Your task to perform on an android device: choose inbox layout in the gmail app Image 0: 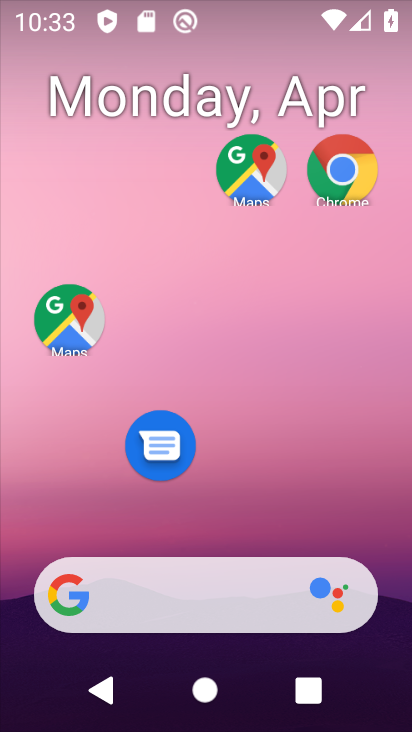
Step 0: drag from (291, 258) to (283, 0)
Your task to perform on an android device: choose inbox layout in the gmail app Image 1: 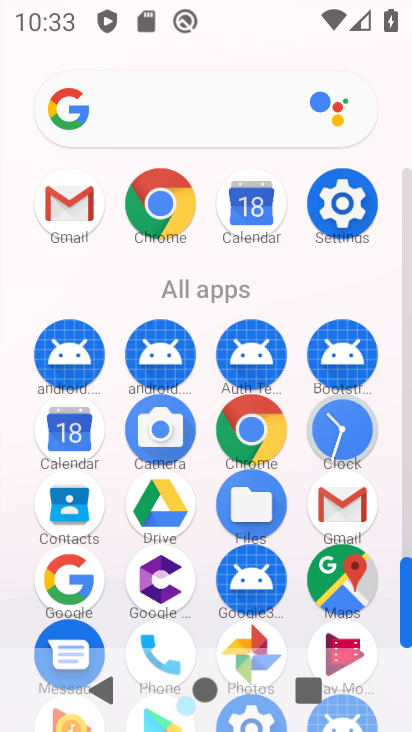
Step 1: click (61, 204)
Your task to perform on an android device: choose inbox layout in the gmail app Image 2: 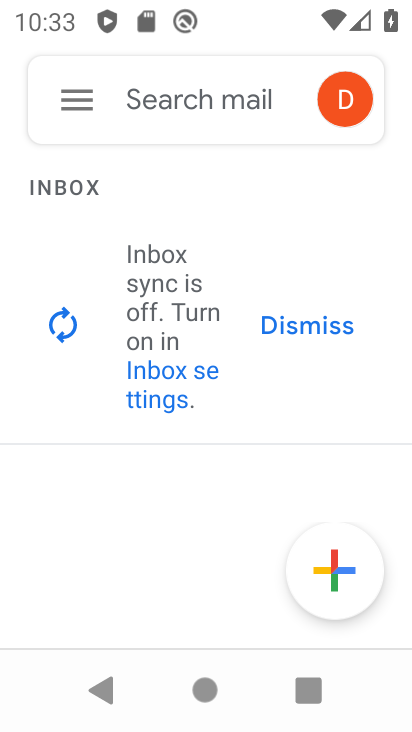
Step 2: click (76, 100)
Your task to perform on an android device: choose inbox layout in the gmail app Image 3: 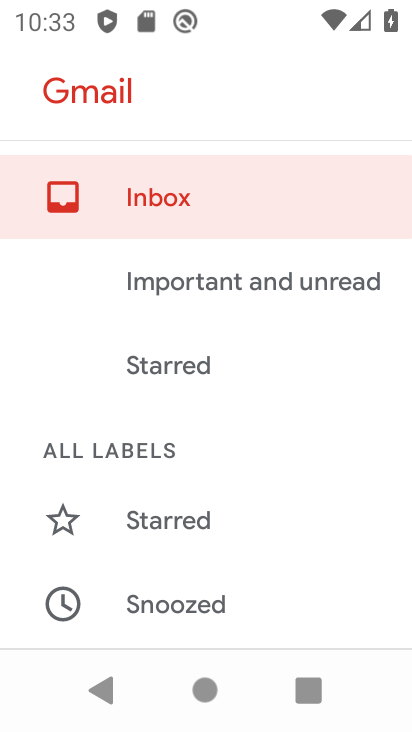
Step 3: drag from (204, 546) to (227, 152)
Your task to perform on an android device: choose inbox layout in the gmail app Image 4: 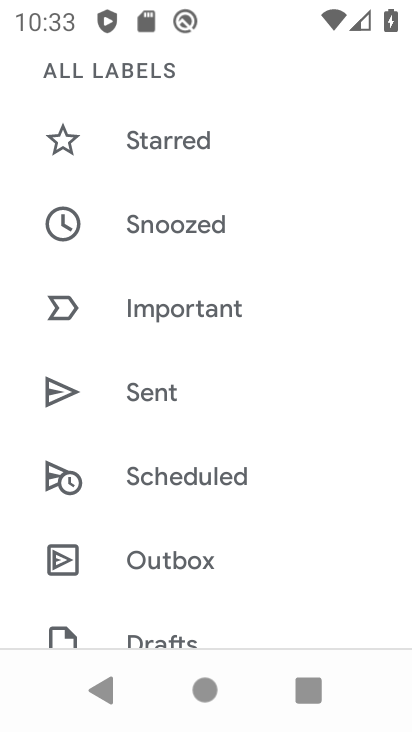
Step 4: drag from (263, 559) to (286, 158)
Your task to perform on an android device: choose inbox layout in the gmail app Image 5: 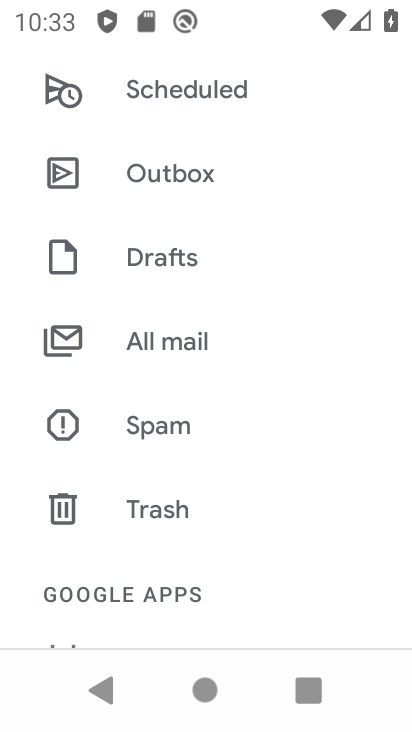
Step 5: drag from (255, 546) to (266, 155)
Your task to perform on an android device: choose inbox layout in the gmail app Image 6: 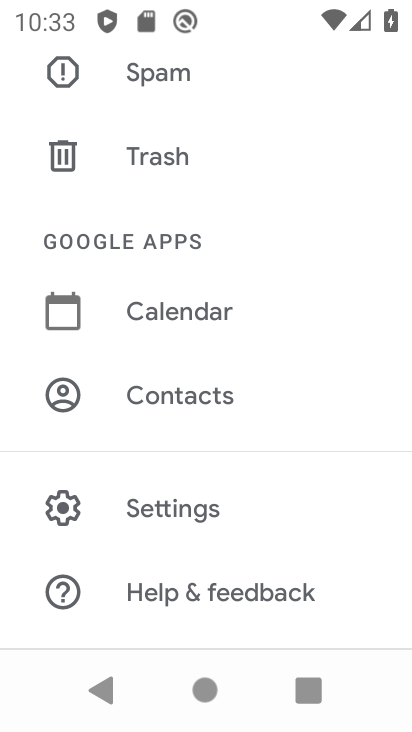
Step 6: click (198, 507)
Your task to perform on an android device: choose inbox layout in the gmail app Image 7: 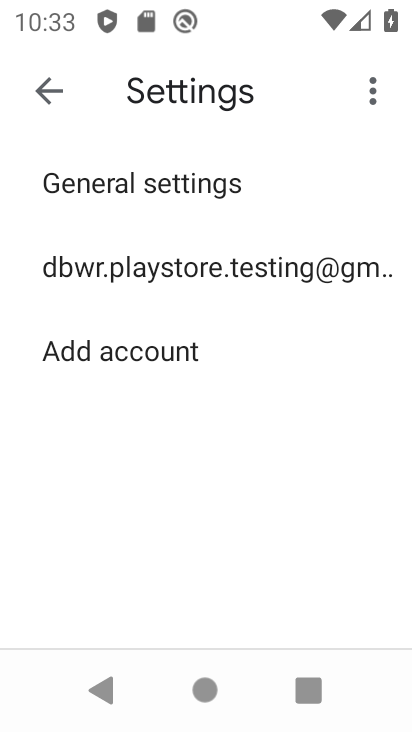
Step 7: click (171, 260)
Your task to perform on an android device: choose inbox layout in the gmail app Image 8: 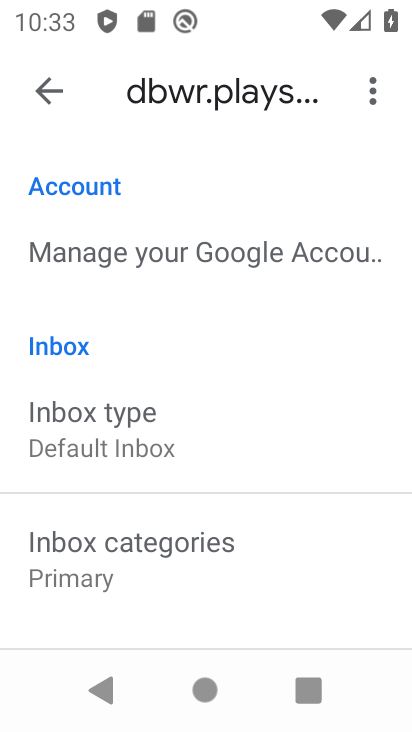
Step 8: click (132, 427)
Your task to perform on an android device: choose inbox layout in the gmail app Image 9: 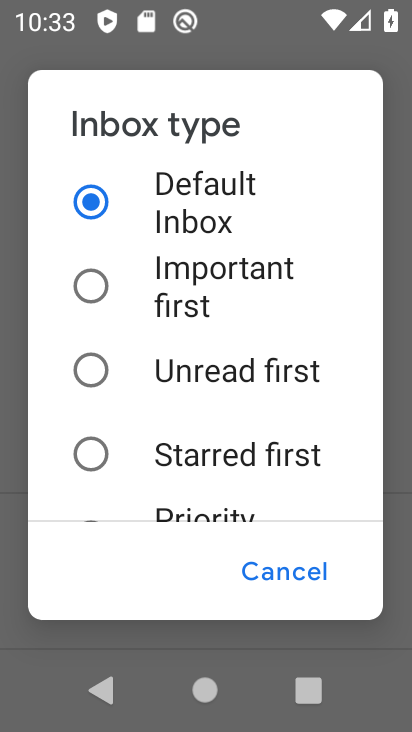
Step 9: drag from (96, 500) to (129, 188)
Your task to perform on an android device: choose inbox layout in the gmail app Image 10: 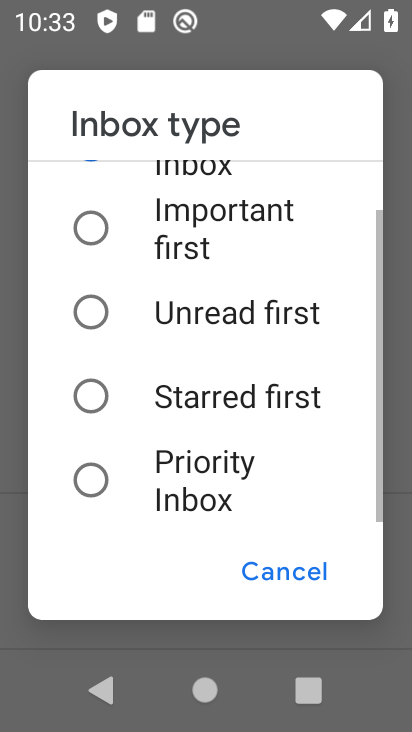
Step 10: click (93, 483)
Your task to perform on an android device: choose inbox layout in the gmail app Image 11: 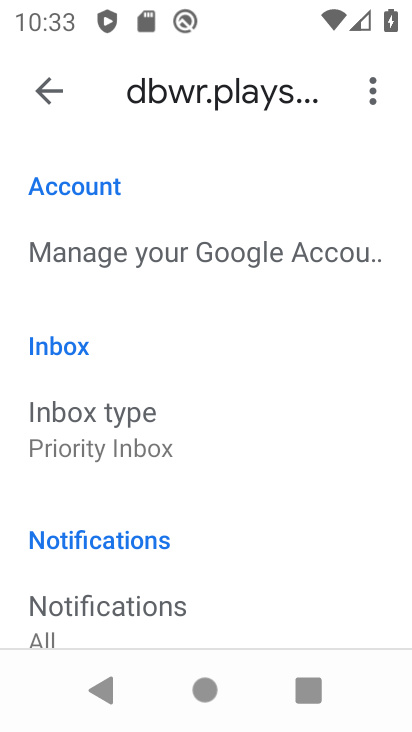
Step 11: task complete